Your task to perform on an android device: Open Chrome and go to settings Image 0: 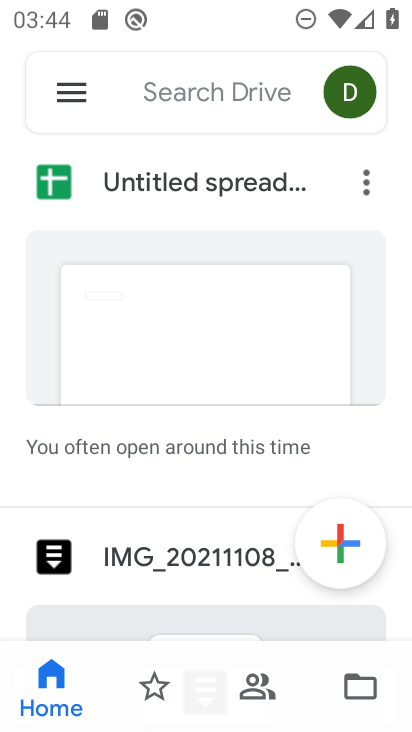
Step 0: drag from (407, 607) to (410, 382)
Your task to perform on an android device: Open Chrome and go to settings Image 1: 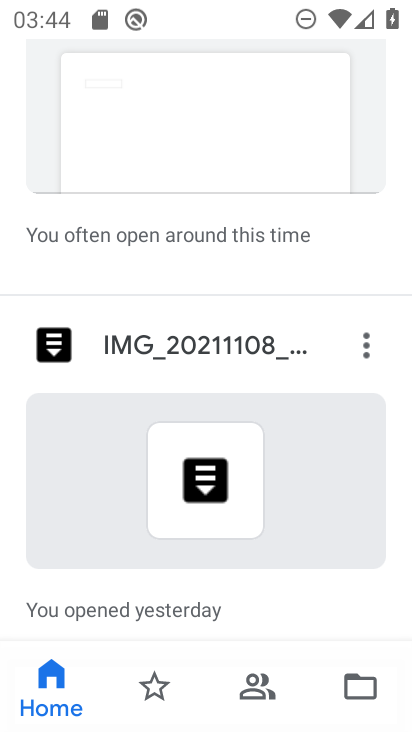
Step 1: press home button
Your task to perform on an android device: Open Chrome and go to settings Image 2: 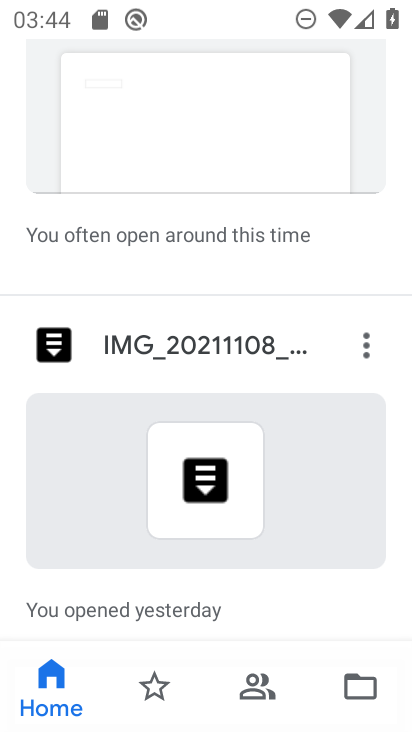
Step 2: drag from (410, 382) to (395, 570)
Your task to perform on an android device: Open Chrome and go to settings Image 3: 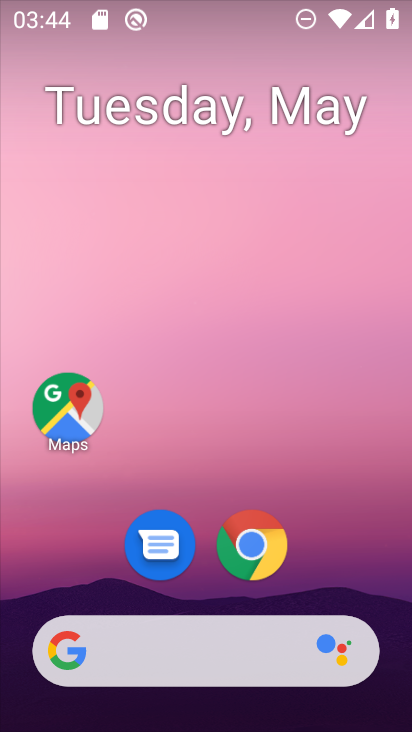
Step 3: click (255, 539)
Your task to perform on an android device: Open Chrome and go to settings Image 4: 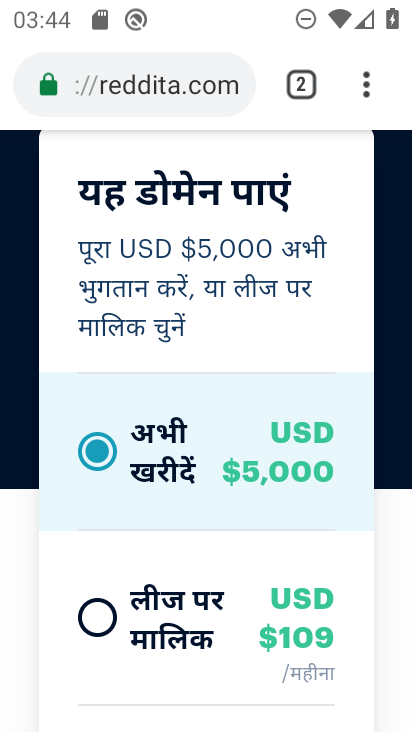
Step 4: click (364, 95)
Your task to perform on an android device: Open Chrome and go to settings Image 5: 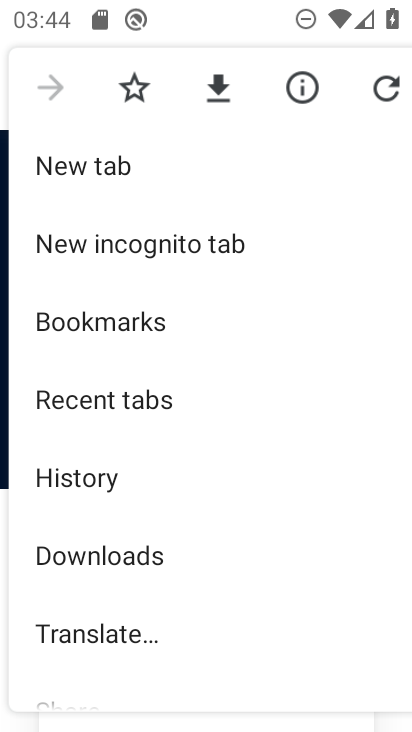
Step 5: drag from (198, 608) to (238, 272)
Your task to perform on an android device: Open Chrome and go to settings Image 6: 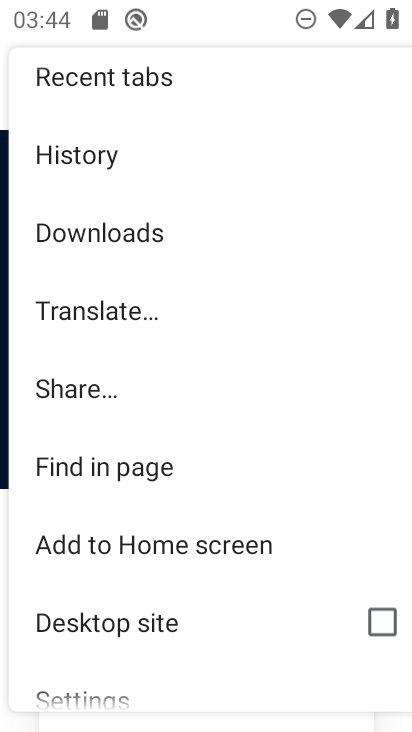
Step 6: drag from (253, 601) to (222, 213)
Your task to perform on an android device: Open Chrome and go to settings Image 7: 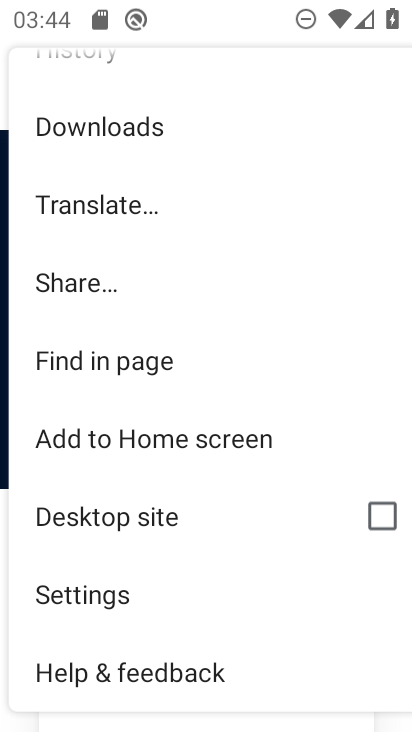
Step 7: click (81, 585)
Your task to perform on an android device: Open Chrome and go to settings Image 8: 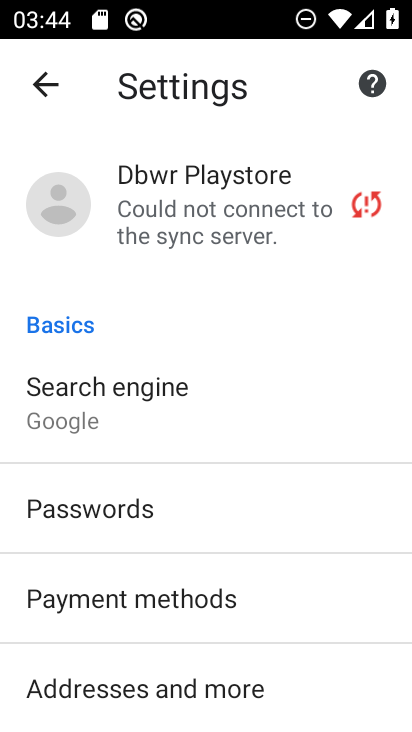
Step 8: task complete